Your task to perform on an android device: see tabs open on other devices in the chrome app Image 0: 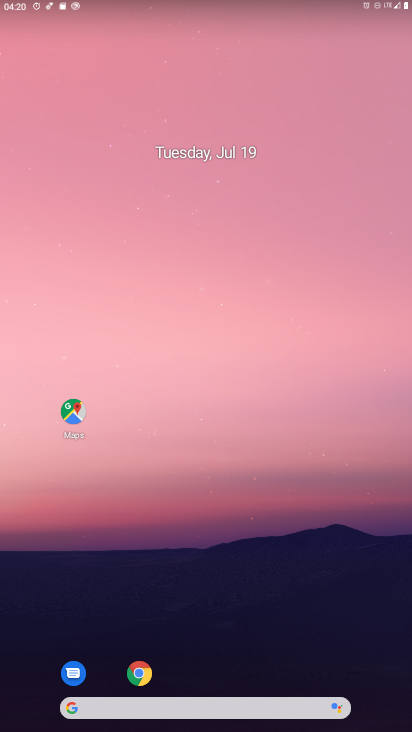
Step 0: click (136, 667)
Your task to perform on an android device: see tabs open on other devices in the chrome app Image 1: 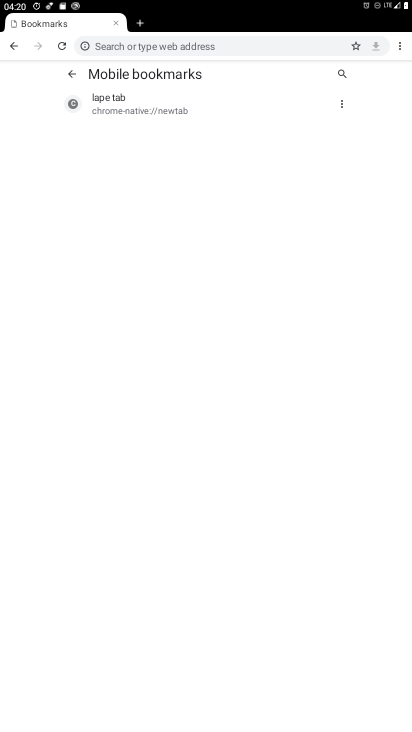
Step 1: click (399, 41)
Your task to perform on an android device: see tabs open on other devices in the chrome app Image 2: 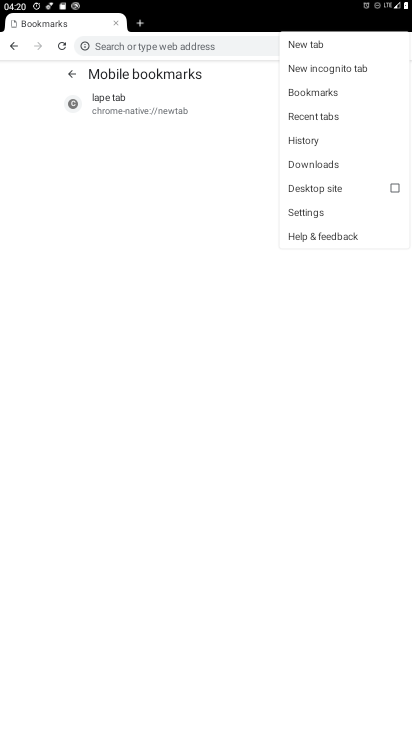
Step 2: click (327, 117)
Your task to perform on an android device: see tabs open on other devices in the chrome app Image 3: 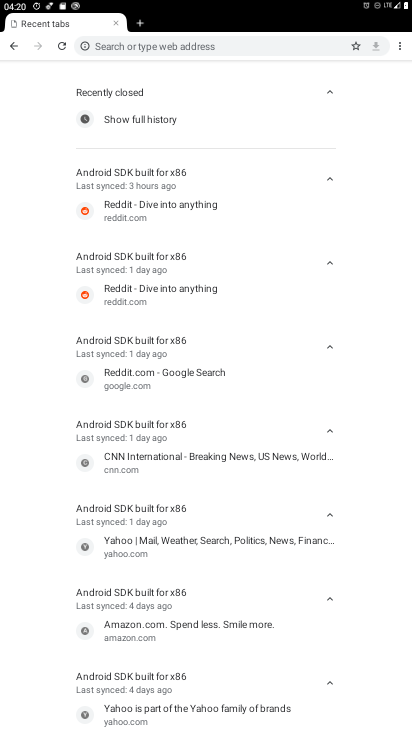
Step 3: task complete